Your task to perform on an android device: turn off translation in the chrome app Image 0: 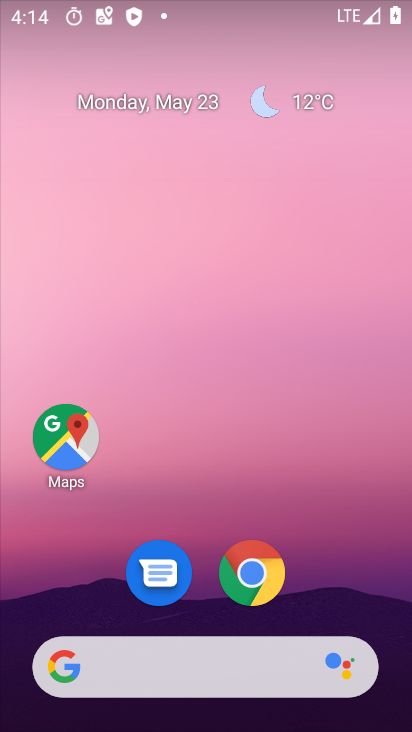
Step 0: click (244, 572)
Your task to perform on an android device: turn off translation in the chrome app Image 1: 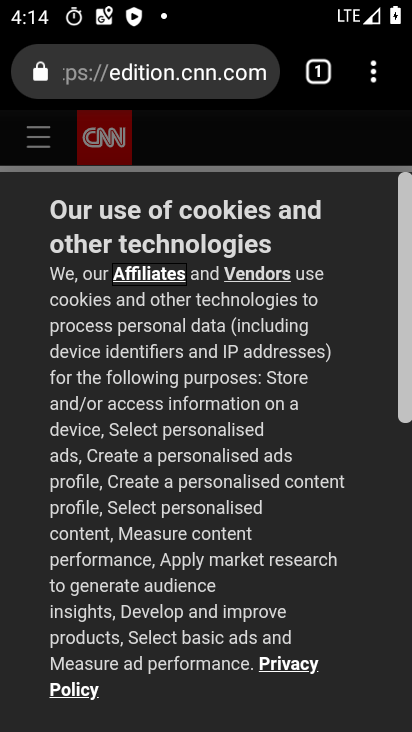
Step 1: click (375, 82)
Your task to perform on an android device: turn off translation in the chrome app Image 2: 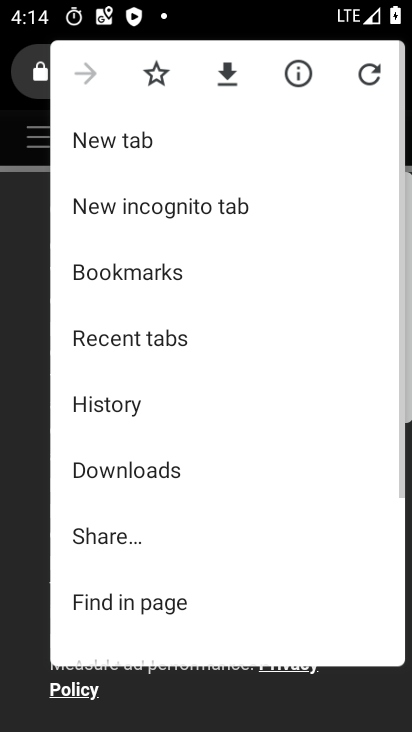
Step 2: drag from (151, 616) to (301, 211)
Your task to perform on an android device: turn off translation in the chrome app Image 3: 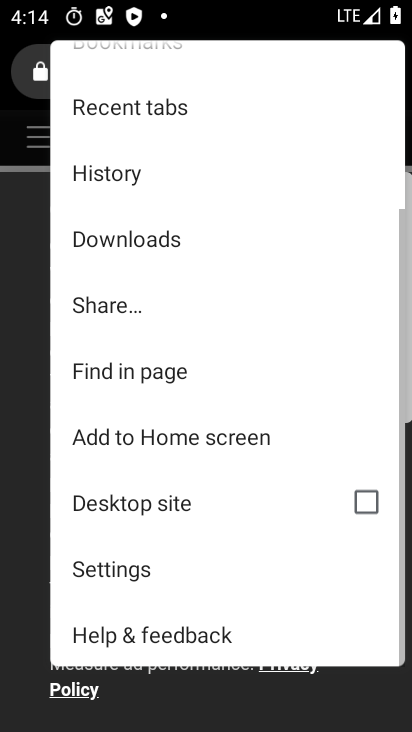
Step 3: click (135, 569)
Your task to perform on an android device: turn off translation in the chrome app Image 4: 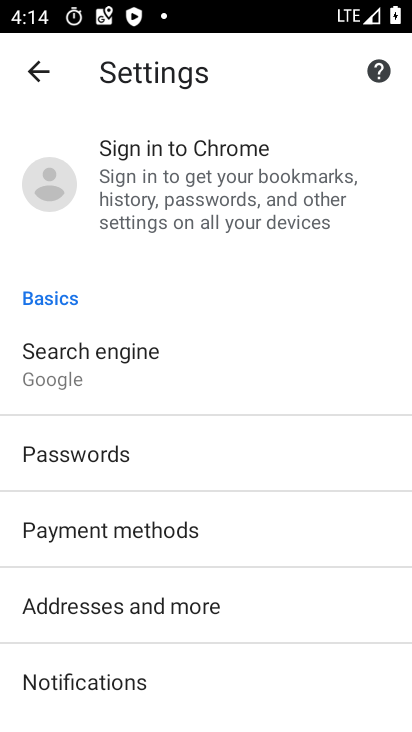
Step 4: drag from (59, 707) to (395, 248)
Your task to perform on an android device: turn off translation in the chrome app Image 5: 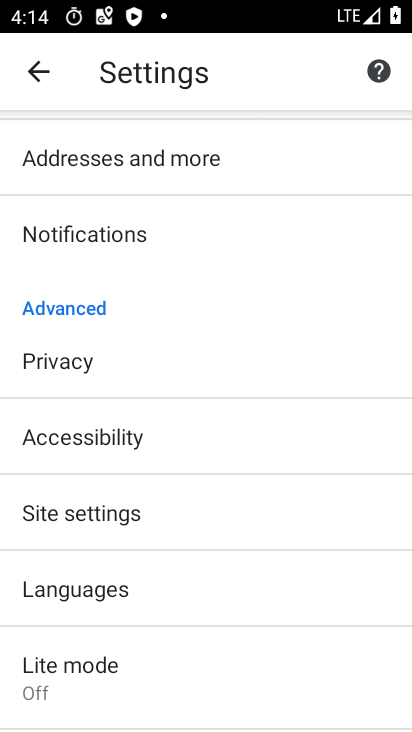
Step 5: click (94, 534)
Your task to perform on an android device: turn off translation in the chrome app Image 6: 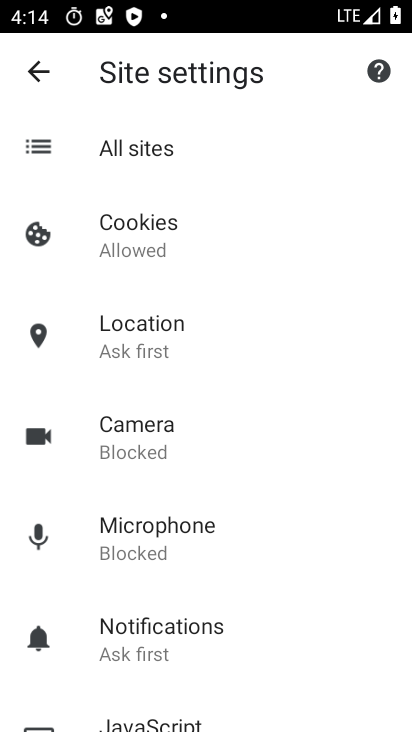
Step 6: drag from (97, 680) to (406, 292)
Your task to perform on an android device: turn off translation in the chrome app Image 7: 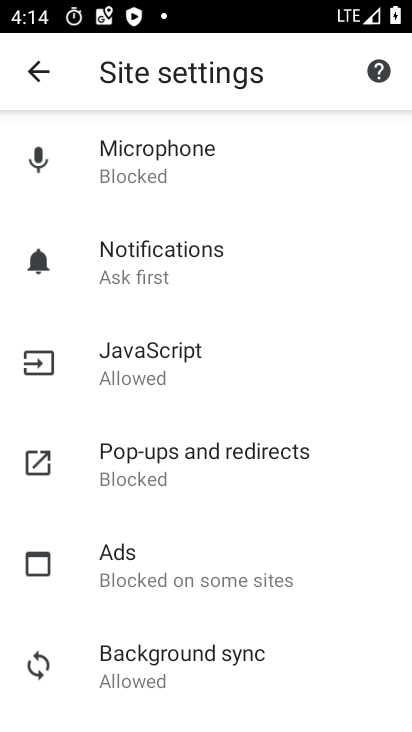
Step 7: press back button
Your task to perform on an android device: turn off translation in the chrome app Image 8: 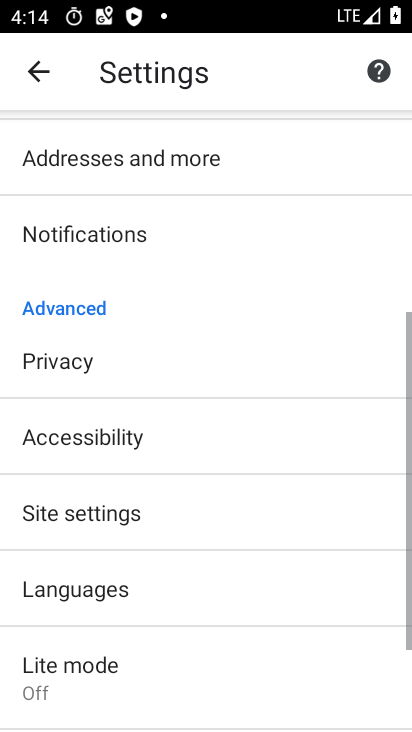
Step 8: click (118, 599)
Your task to perform on an android device: turn off translation in the chrome app Image 9: 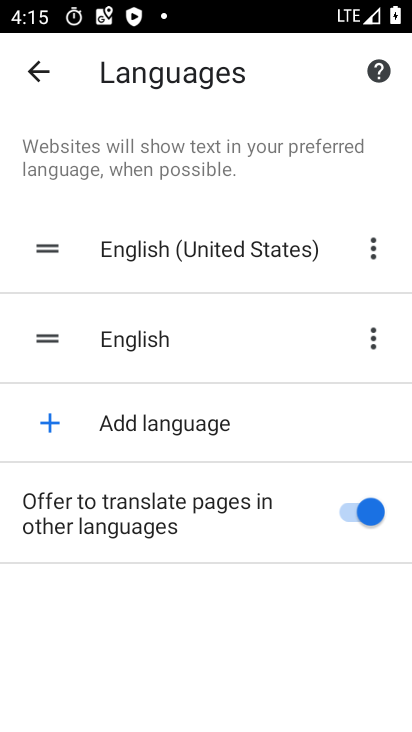
Step 9: click (363, 510)
Your task to perform on an android device: turn off translation in the chrome app Image 10: 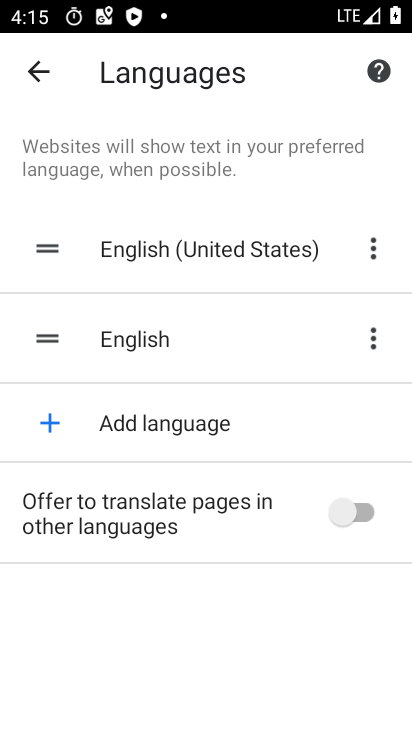
Step 10: task complete